Your task to perform on an android device: find photos in the google photos app Image 0: 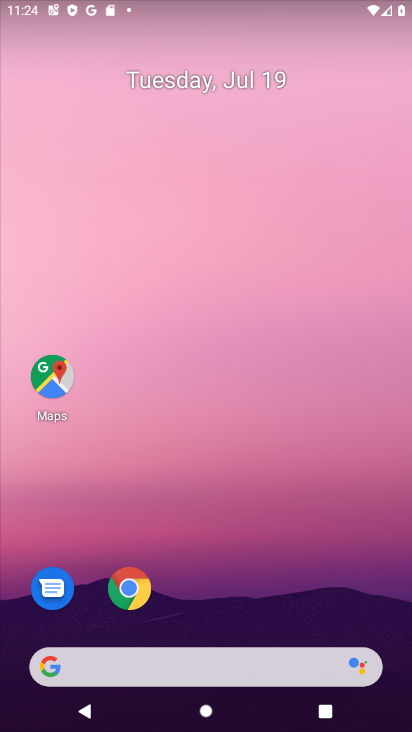
Step 0: drag from (226, 689) to (206, 282)
Your task to perform on an android device: find photos in the google photos app Image 1: 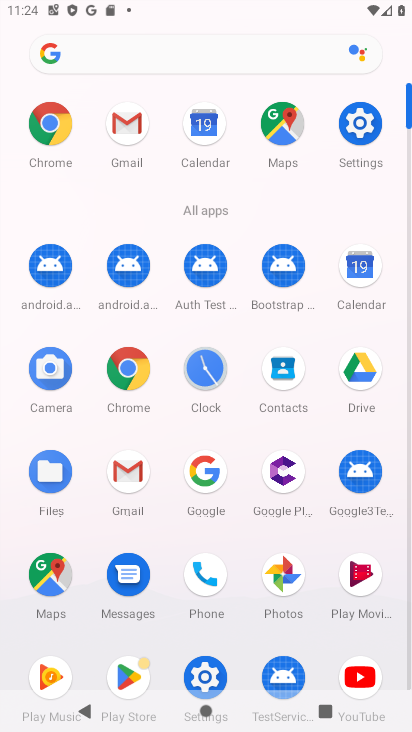
Step 1: click (283, 579)
Your task to perform on an android device: find photos in the google photos app Image 2: 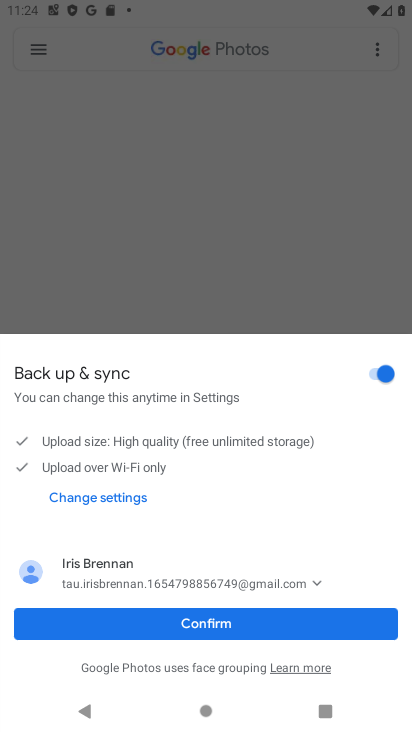
Step 2: click (200, 624)
Your task to perform on an android device: find photos in the google photos app Image 3: 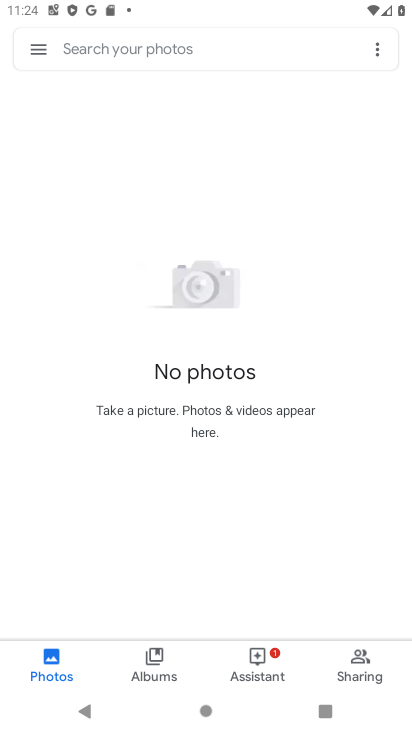
Step 3: task complete